Your task to perform on an android device: Open the calendar and show me this week's events? Image 0: 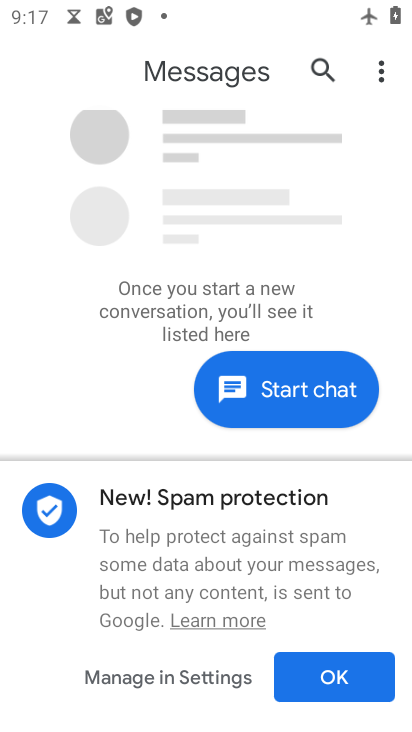
Step 0: press home button
Your task to perform on an android device: Open the calendar and show me this week's events? Image 1: 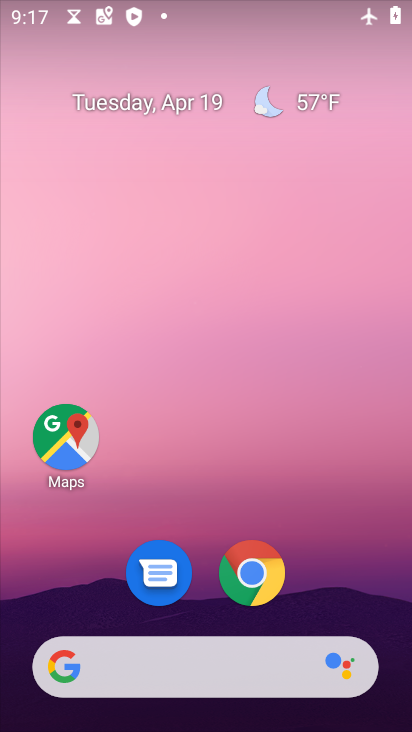
Step 1: drag from (310, 570) to (301, 56)
Your task to perform on an android device: Open the calendar and show me this week's events? Image 2: 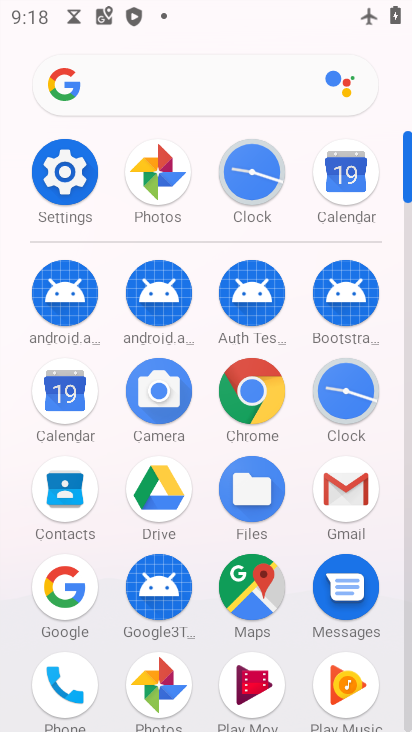
Step 2: click (351, 179)
Your task to perform on an android device: Open the calendar and show me this week's events? Image 3: 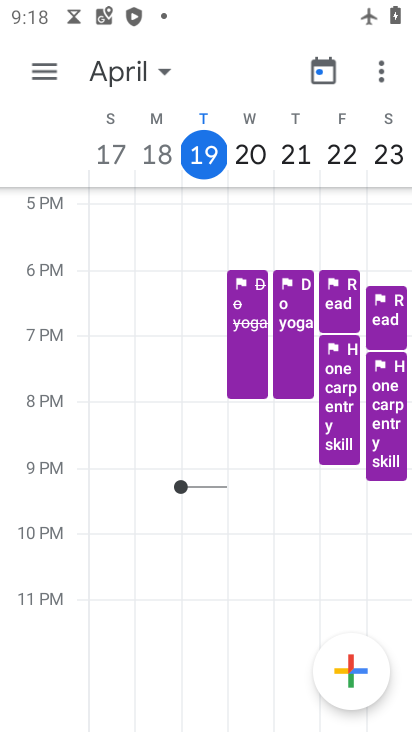
Step 3: task complete